Your task to perform on an android device: Go to Yahoo.com Image 0: 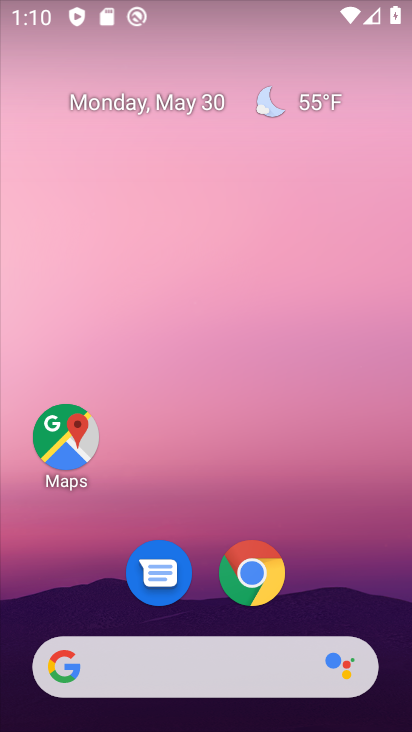
Step 0: click (253, 574)
Your task to perform on an android device: Go to Yahoo.com Image 1: 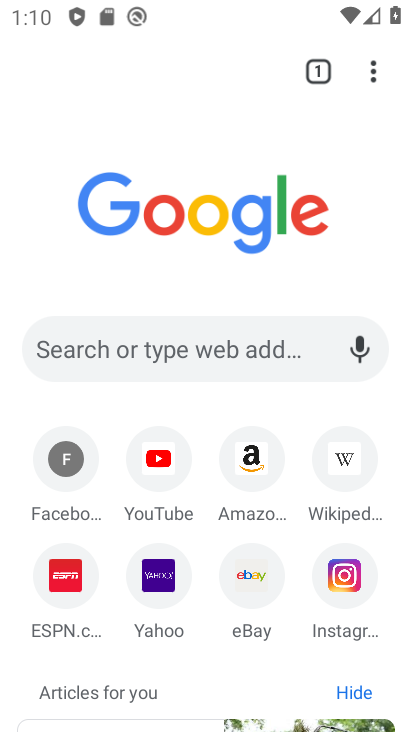
Step 1: click (171, 349)
Your task to perform on an android device: Go to Yahoo.com Image 2: 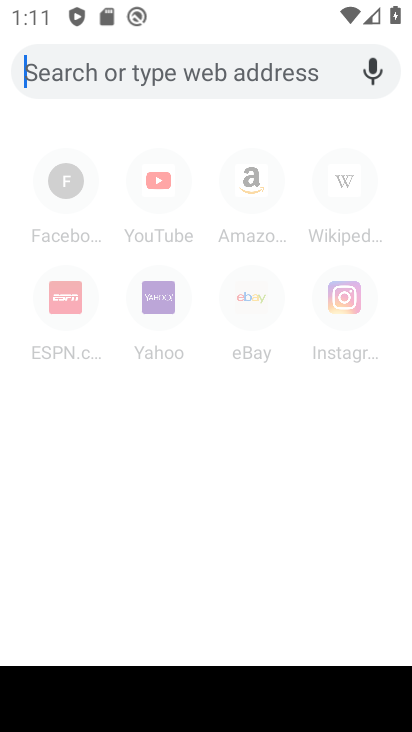
Step 2: type "Yahoo.com"
Your task to perform on an android device: Go to Yahoo.com Image 3: 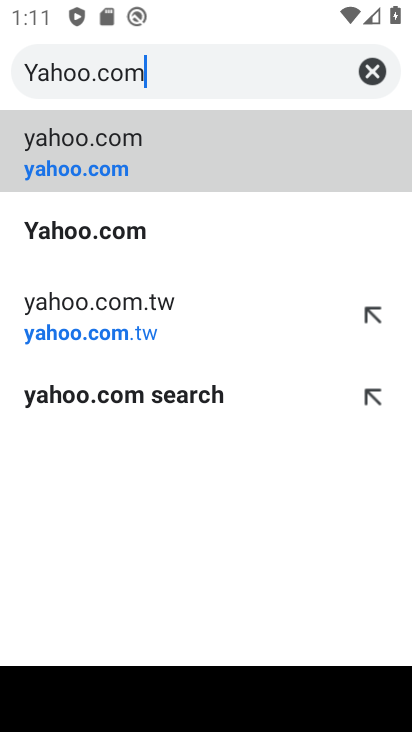
Step 3: click (117, 235)
Your task to perform on an android device: Go to Yahoo.com Image 4: 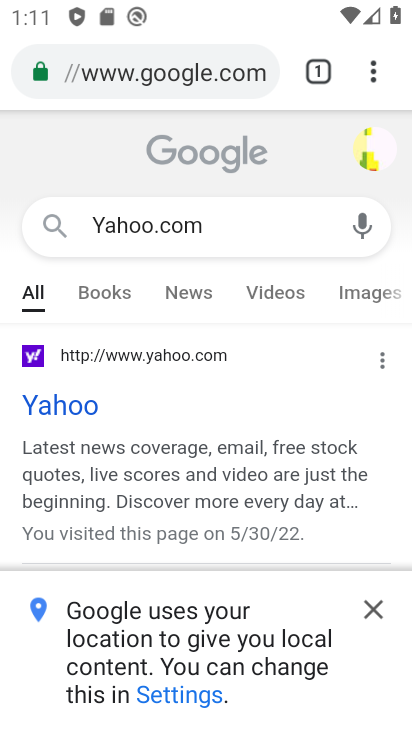
Step 4: click (113, 368)
Your task to perform on an android device: Go to Yahoo.com Image 5: 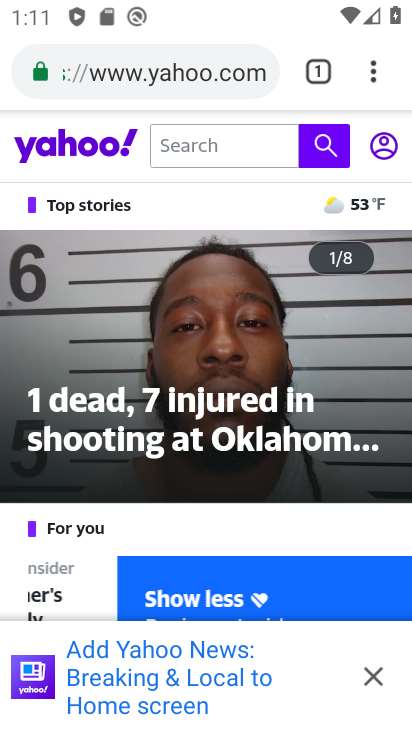
Step 5: task complete